Your task to perform on an android device: Search for the best gaming mouse on Best Buy. Image 0: 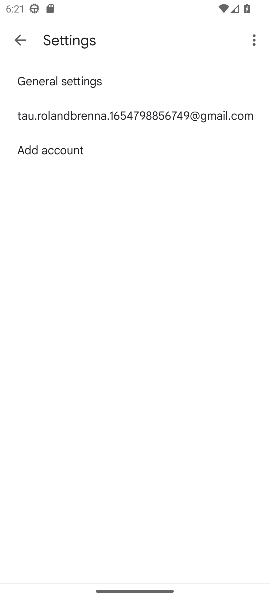
Step 0: press home button
Your task to perform on an android device: Search for the best gaming mouse on Best Buy. Image 1: 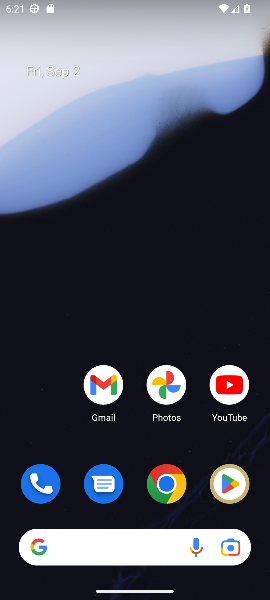
Step 1: click (169, 485)
Your task to perform on an android device: Search for the best gaming mouse on Best Buy. Image 2: 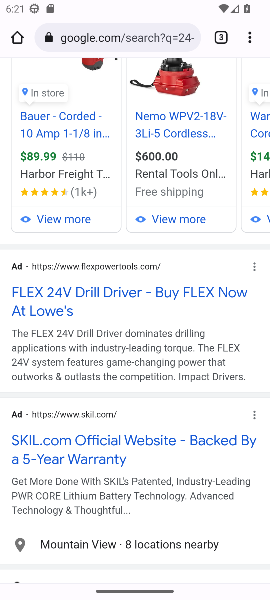
Step 2: click (156, 29)
Your task to perform on an android device: Search for the best gaming mouse on Best Buy. Image 3: 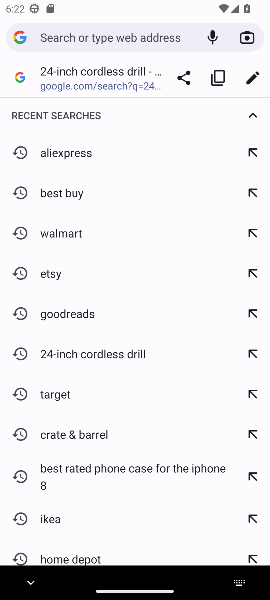
Step 3: type " Best Buy"
Your task to perform on an android device: Search for the best gaming mouse on Best Buy. Image 4: 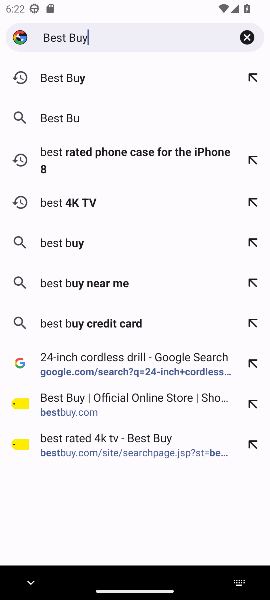
Step 4: press enter
Your task to perform on an android device: Search for the best gaming mouse on Best Buy. Image 5: 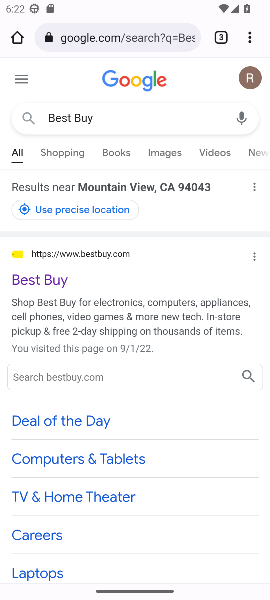
Step 5: click (36, 282)
Your task to perform on an android device: Search for the best gaming mouse on Best Buy. Image 6: 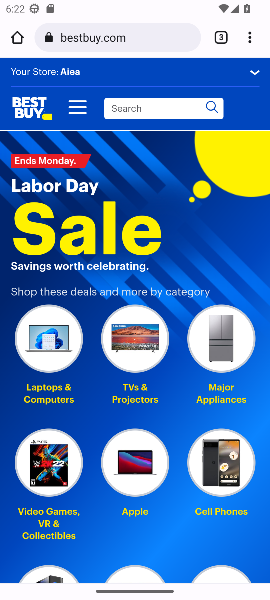
Step 6: click (184, 104)
Your task to perform on an android device: Search for the best gaming mouse on Best Buy. Image 7: 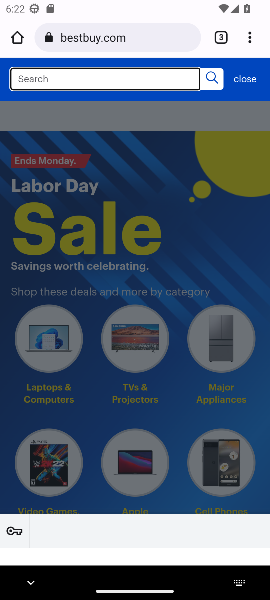
Step 7: type "gaming mouse"
Your task to perform on an android device: Search for the best gaming mouse on Best Buy. Image 8: 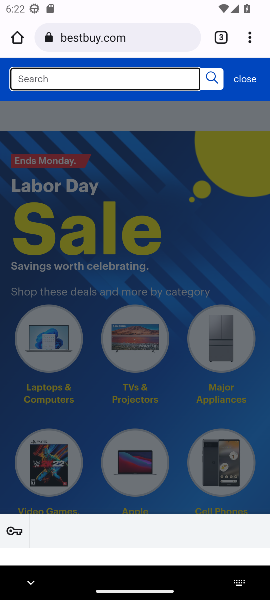
Step 8: press enter
Your task to perform on an android device: Search for the best gaming mouse on Best Buy. Image 9: 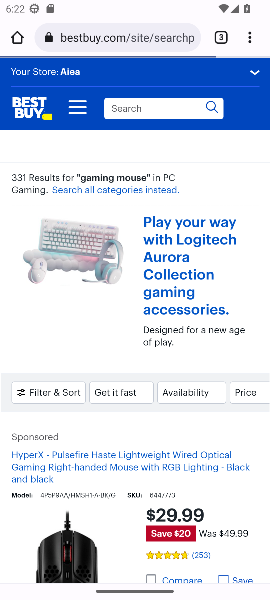
Step 9: task complete